Your task to perform on an android device: turn notification dots off Image 0: 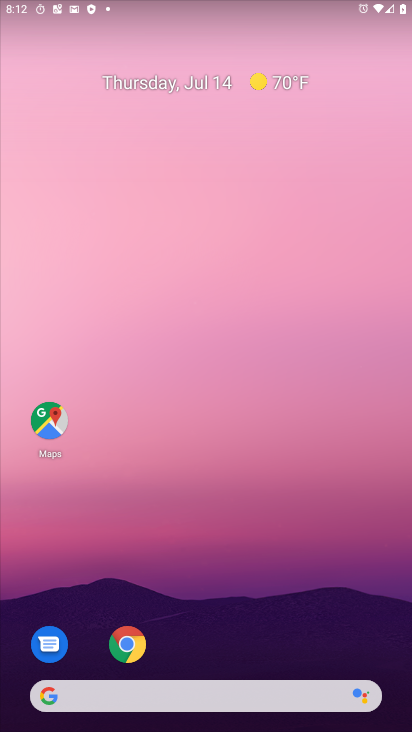
Step 0: drag from (274, 603) to (396, 38)
Your task to perform on an android device: turn notification dots off Image 1: 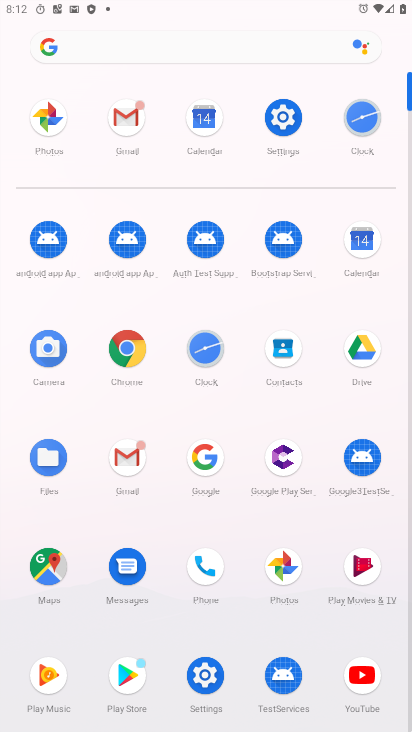
Step 1: click (277, 120)
Your task to perform on an android device: turn notification dots off Image 2: 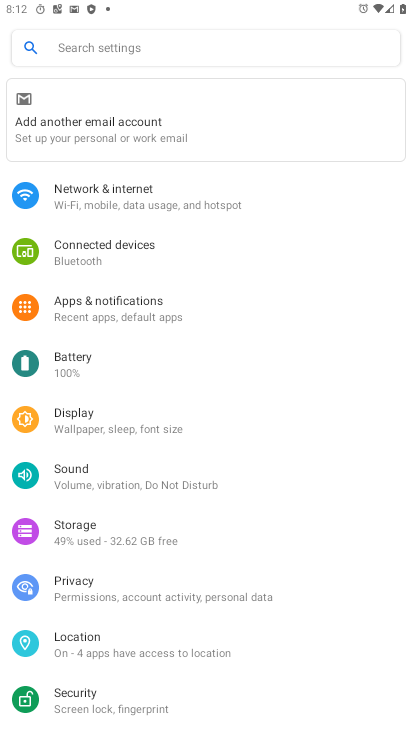
Step 2: click (138, 299)
Your task to perform on an android device: turn notification dots off Image 3: 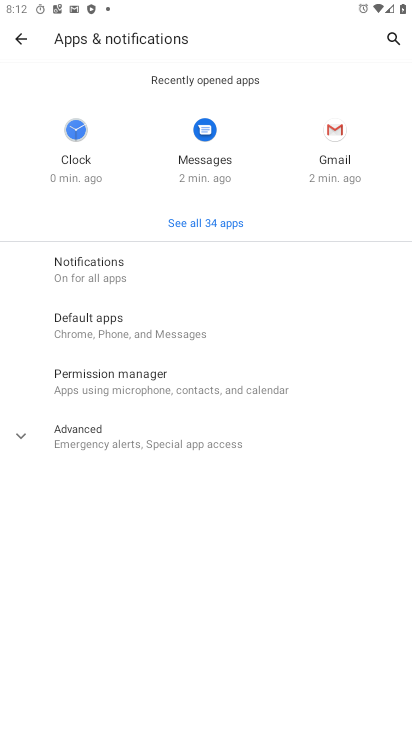
Step 3: click (114, 276)
Your task to perform on an android device: turn notification dots off Image 4: 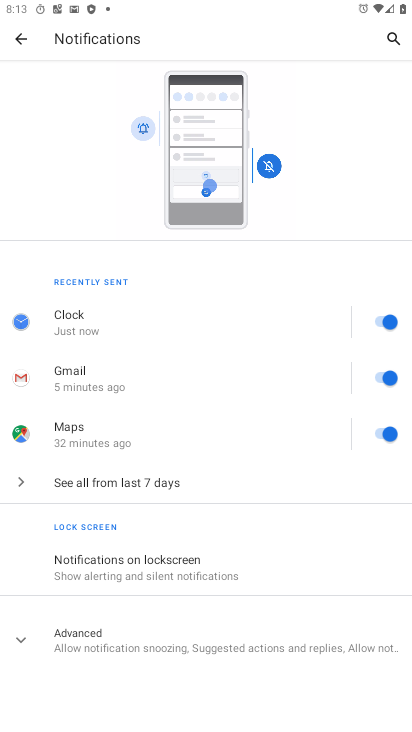
Step 4: click (132, 632)
Your task to perform on an android device: turn notification dots off Image 5: 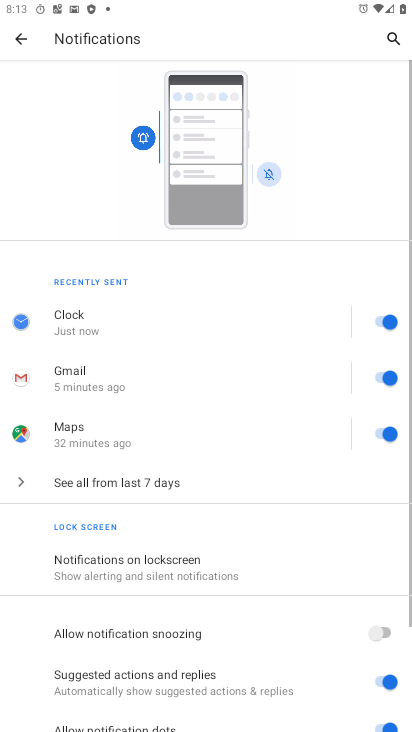
Step 5: drag from (235, 631) to (328, 212)
Your task to perform on an android device: turn notification dots off Image 6: 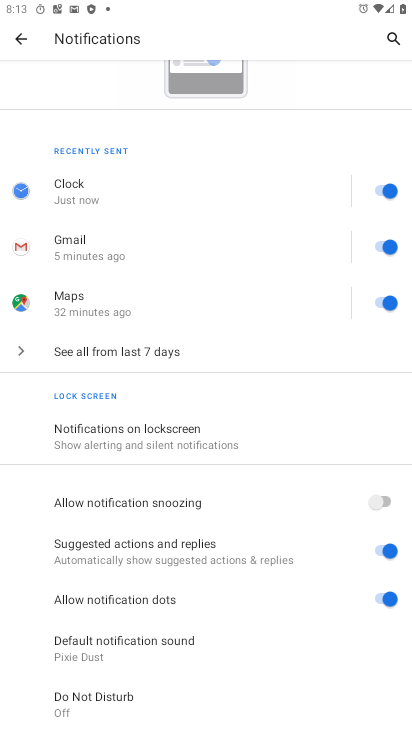
Step 6: click (378, 595)
Your task to perform on an android device: turn notification dots off Image 7: 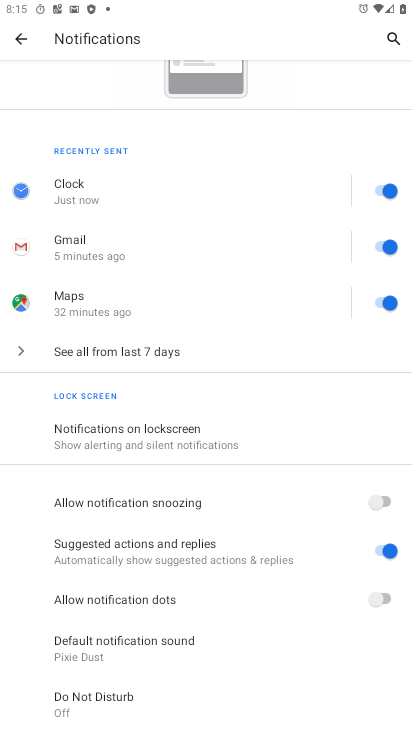
Step 7: task complete